Your task to perform on an android device: turn on showing notifications on the lock screen Image 0: 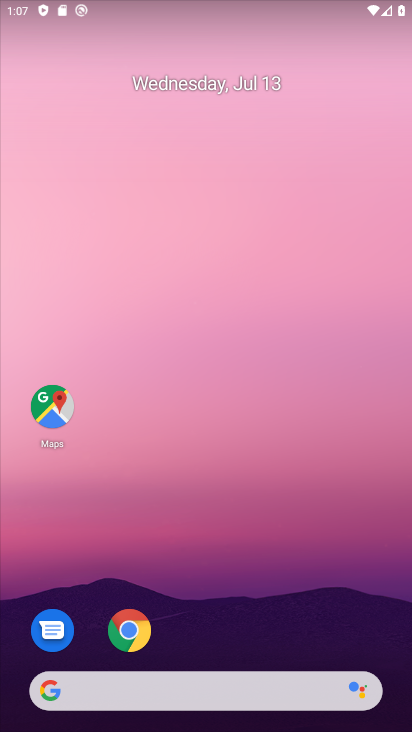
Step 0: press home button
Your task to perform on an android device: turn on showing notifications on the lock screen Image 1: 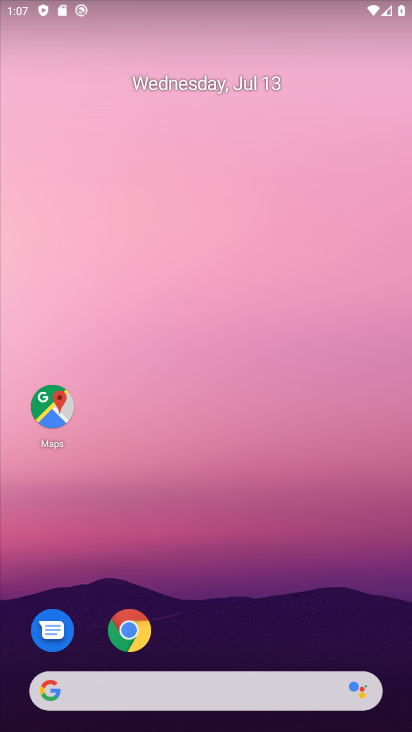
Step 1: drag from (360, 607) to (366, 115)
Your task to perform on an android device: turn on showing notifications on the lock screen Image 2: 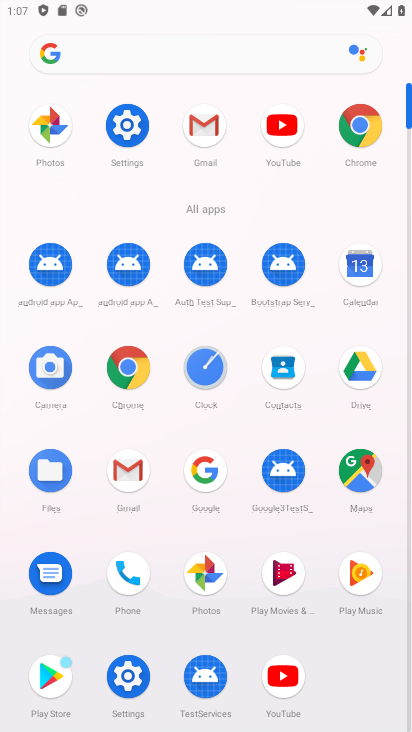
Step 2: click (129, 132)
Your task to perform on an android device: turn on showing notifications on the lock screen Image 3: 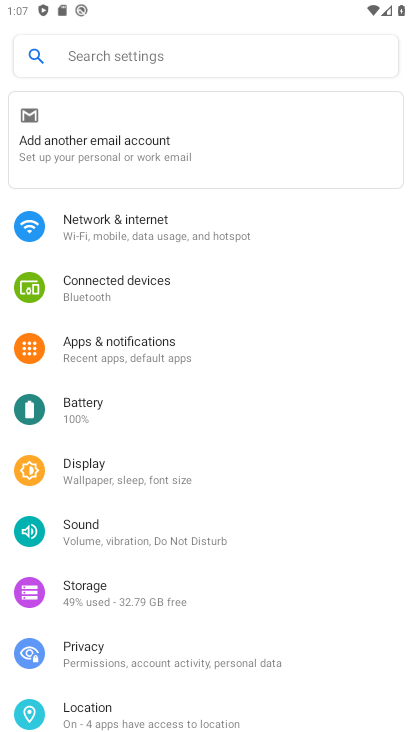
Step 3: drag from (284, 463) to (300, 195)
Your task to perform on an android device: turn on showing notifications on the lock screen Image 4: 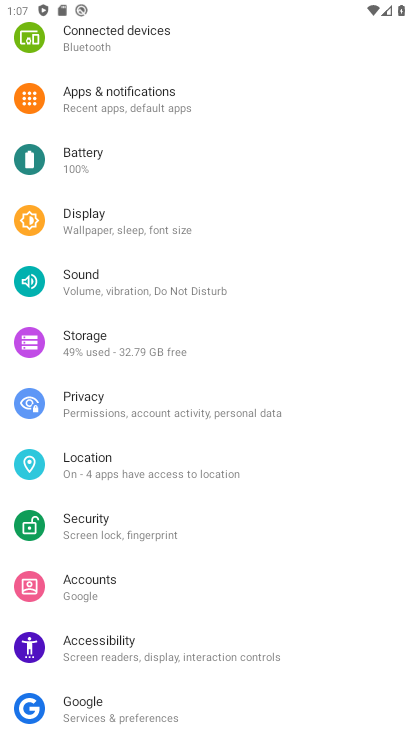
Step 4: drag from (324, 421) to (314, 232)
Your task to perform on an android device: turn on showing notifications on the lock screen Image 5: 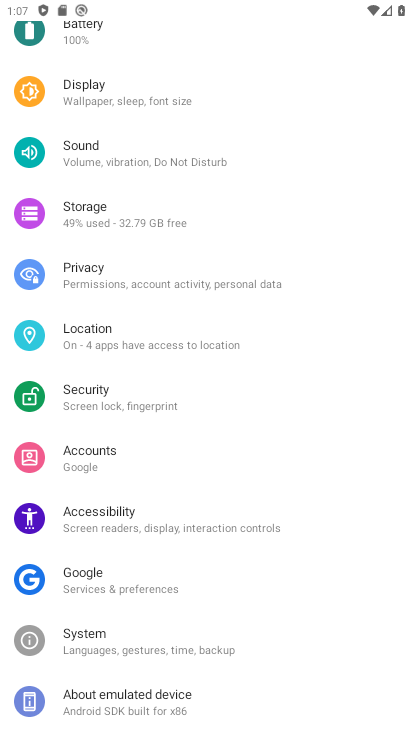
Step 5: drag from (318, 437) to (302, 229)
Your task to perform on an android device: turn on showing notifications on the lock screen Image 6: 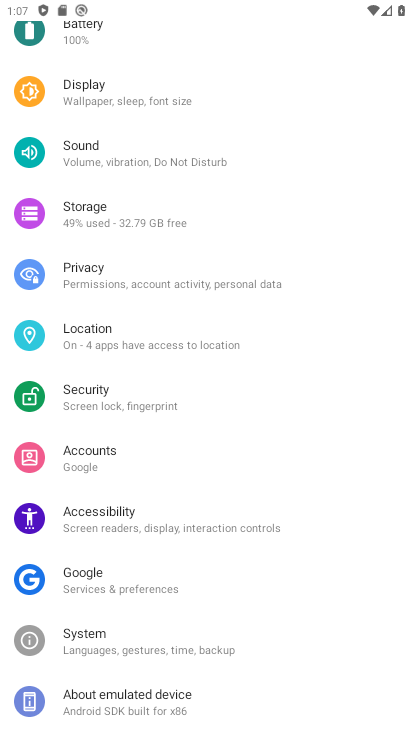
Step 6: drag from (316, 209) to (329, 464)
Your task to perform on an android device: turn on showing notifications on the lock screen Image 7: 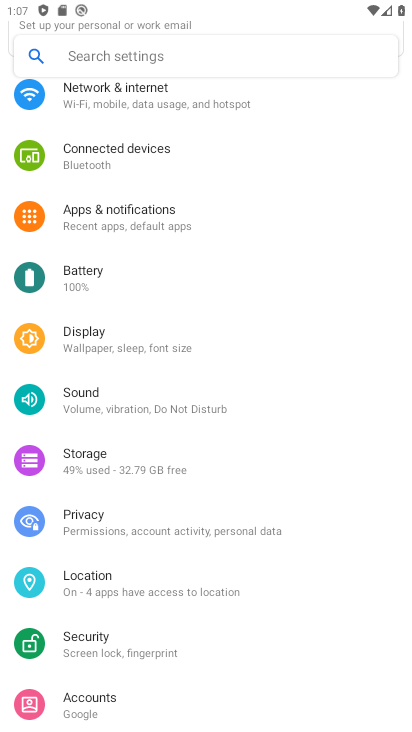
Step 7: drag from (323, 189) to (331, 421)
Your task to perform on an android device: turn on showing notifications on the lock screen Image 8: 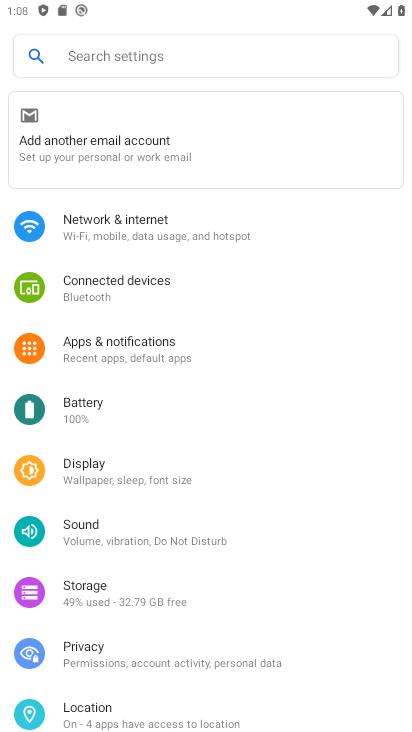
Step 8: click (171, 345)
Your task to perform on an android device: turn on showing notifications on the lock screen Image 9: 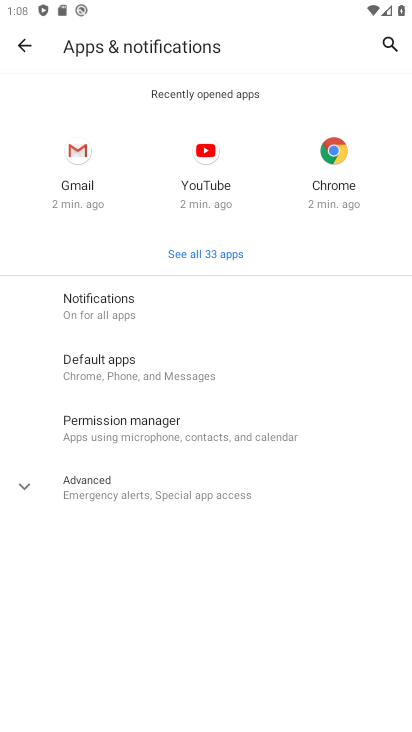
Step 9: click (152, 296)
Your task to perform on an android device: turn on showing notifications on the lock screen Image 10: 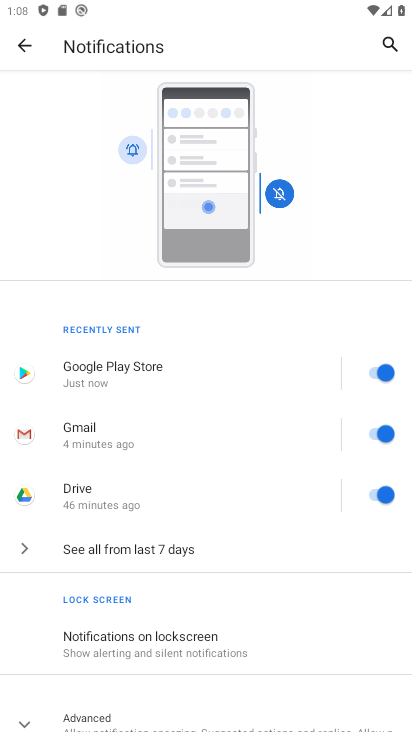
Step 10: drag from (258, 483) to (255, 342)
Your task to perform on an android device: turn on showing notifications on the lock screen Image 11: 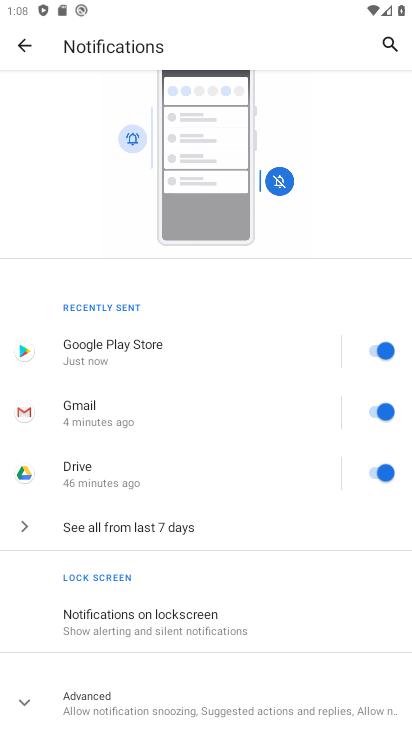
Step 11: click (193, 621)
Your task to perform on an android device: turn on showing notifications on the lock screen Image 12: 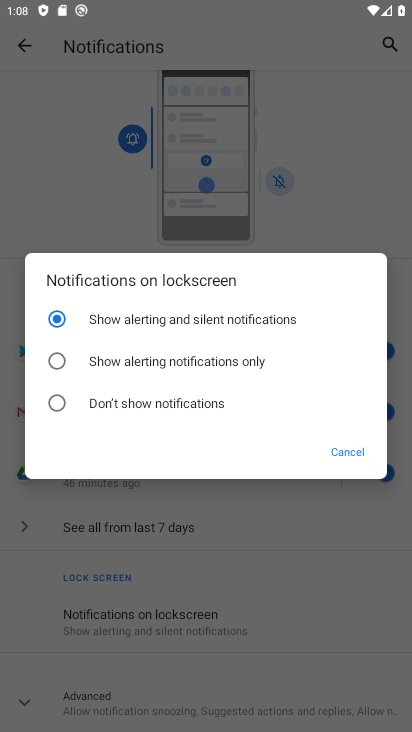
Step 12: task complete